Your task to perform on an android device: Open settings Image 0: 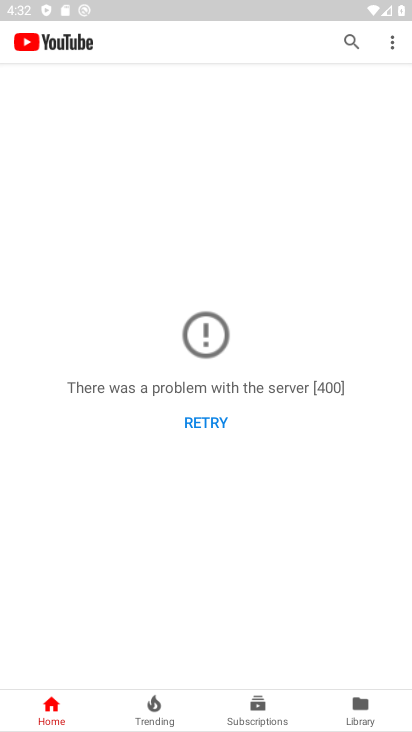
Step 0: press back button
Your task to perform on an android device: Open settings Image 1: 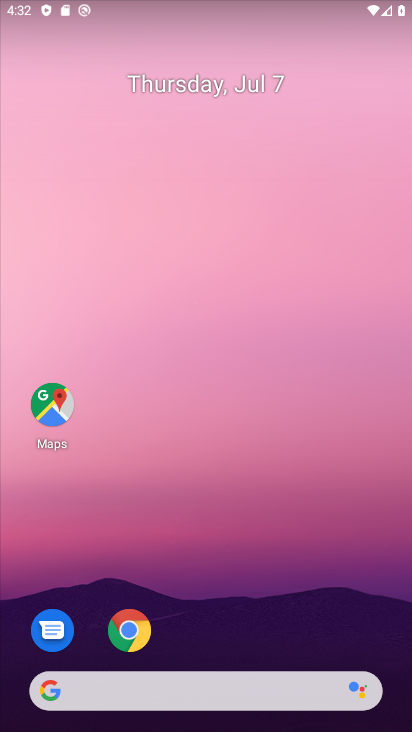
Step 1: drag from (243, 614) to (393, 376)
Your task to perform on an android device: Open settings Image 2: 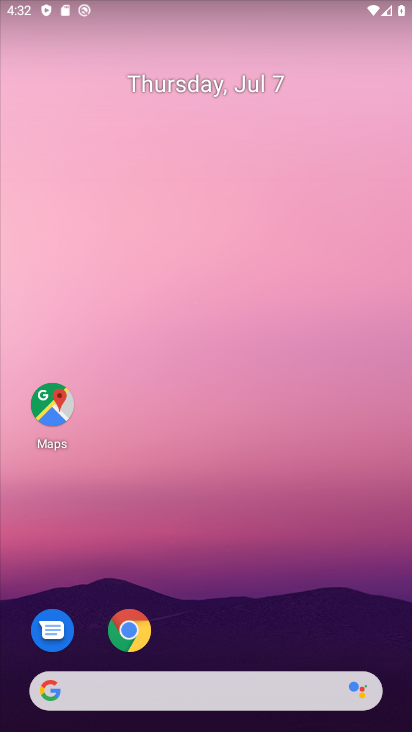
Step 2: drag from (272, 619) to (158, 125)
Your task to perform on an android device: Open settings Image 3: 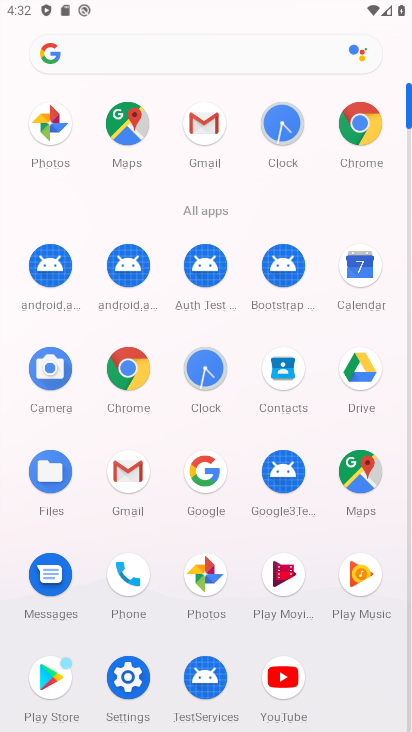
Step 3: click (134, 688)
Your task to perform on an android device: Open settings Image 4: 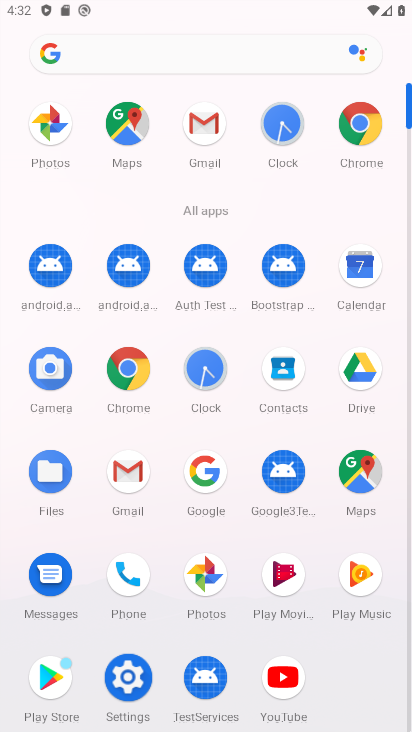
Step 4: click (135, 683)
Your task to perform on an android device: Open settings Image 5: 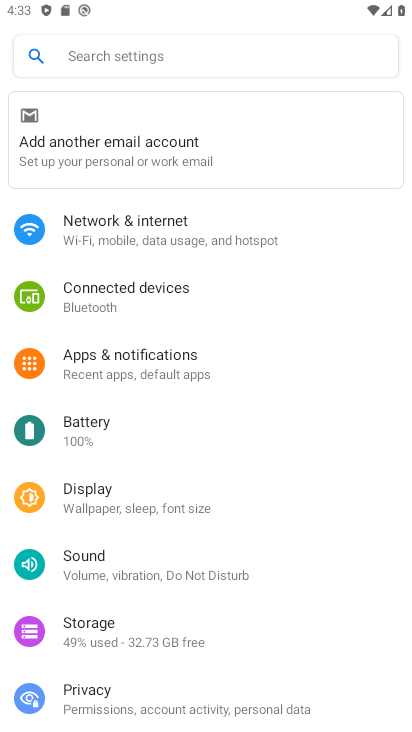
Step 5: task complete